Your task to perform on an android device: change text size in settings app Image 0: 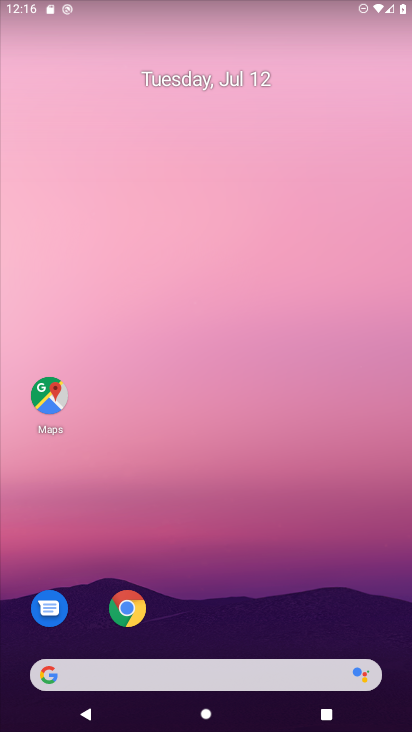
Step 0: drag from (213, 626) to (200, 0)
Your task to perform on an android device: change text size in settings app Image 1: 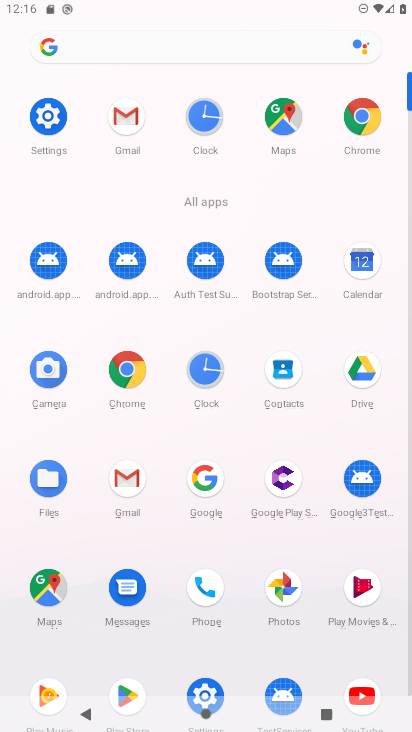
Step 1: click (51, 128)
Your task to perform on an android device: change text size in settings app Image 2: 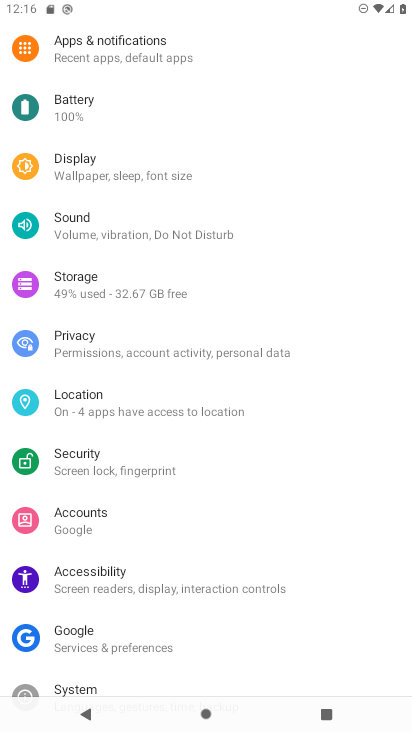
Step 2: click (76, 171)
Your task to perform on an android device: change text size in settings app Image 3: 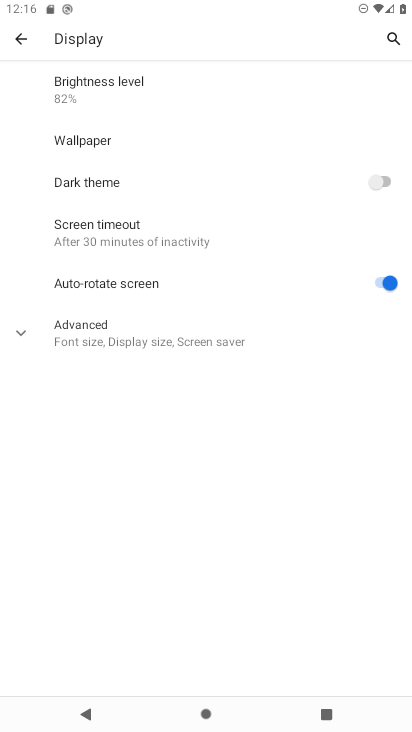
Step 3: click (86, 321)
Your task to perform on an android device: change text size in settings app Image 4: 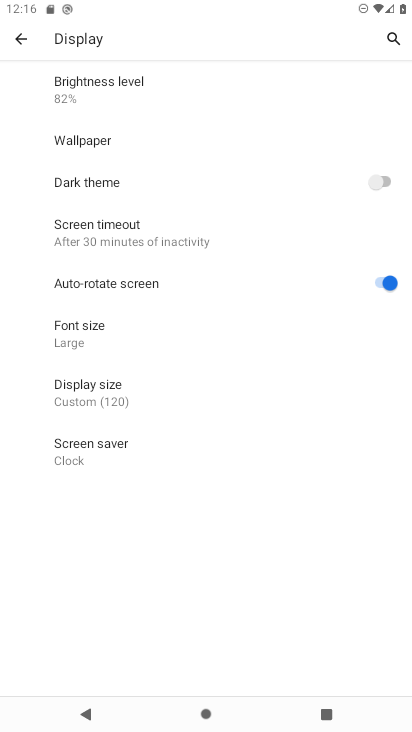
Step 4: click (113, 338)
Your task to perform on an android device: change text size in settings app Image 5: 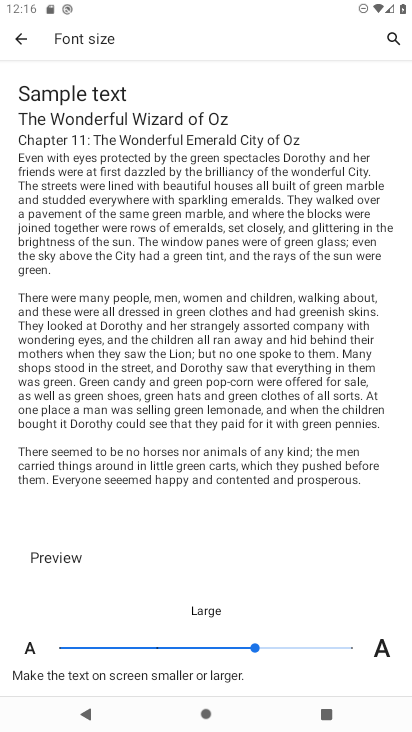
Step 5: click (351, 647)
Your task to perform on an android device: change text size in settings app Image 6: 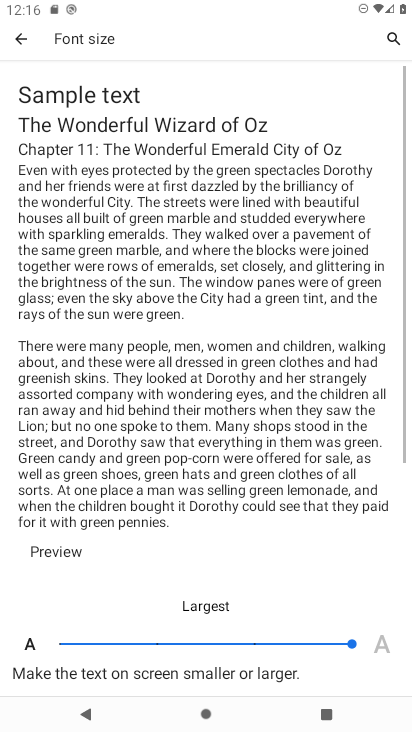
Step 6: task complete